Your task to perform on an android device: Show me the alarms in the clock app Image 0: 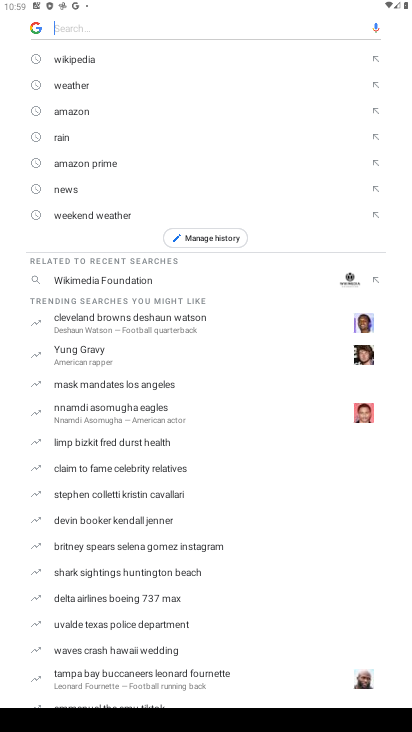
Step 0: press back button
Your task to perform on an android device: Show me the alarms in the clock app Image 1: 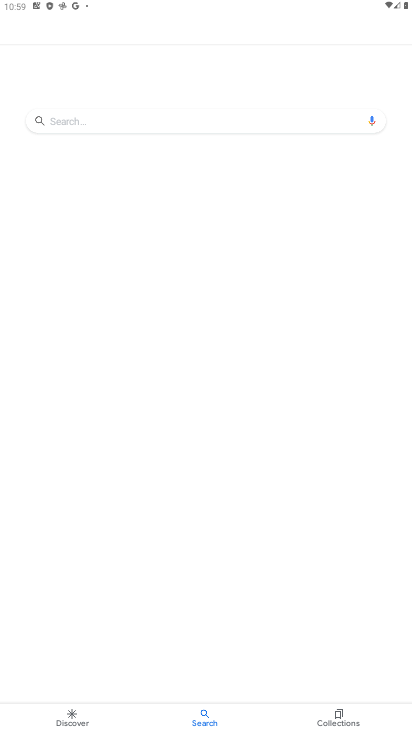
Step 1: press back button
Your task to perform on an android device: Show me the alarms in the clock app Image 2: 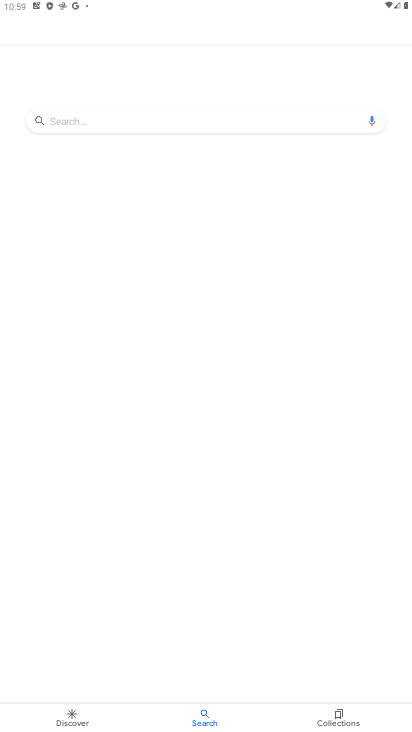
Step 2: press back button
Your task to perform on an android device: Show me the alarms in the clock app Image 3: 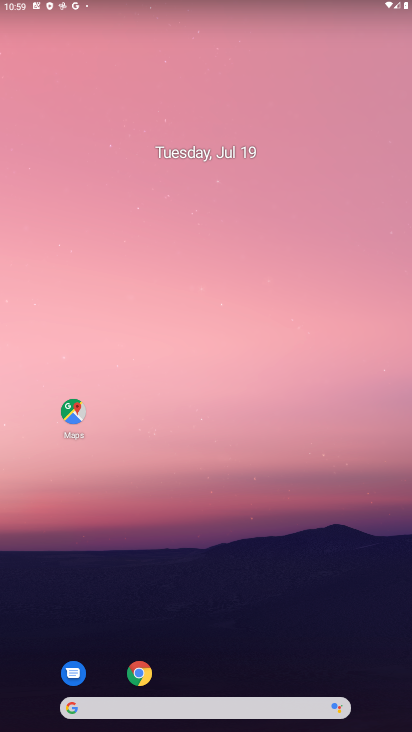
Step 3: drag from (254, 671) to (203, 101)
Your task to perform on an android device: Show me the alarms in the clock app Image 4: 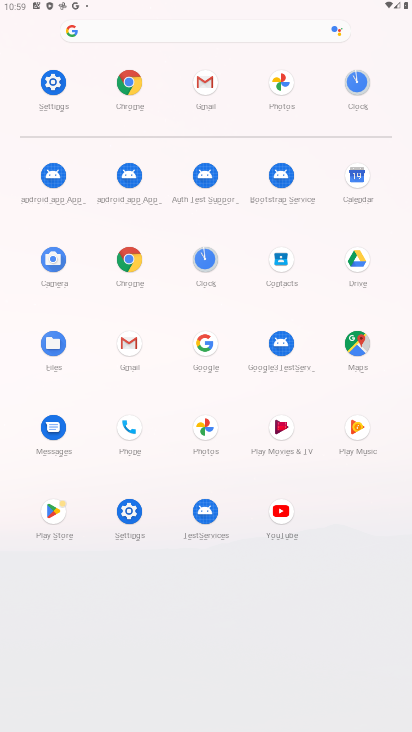
Step 4: click (221, 108)
Your task to perform on an android device: Show me the alarms in the clock app Image 5: 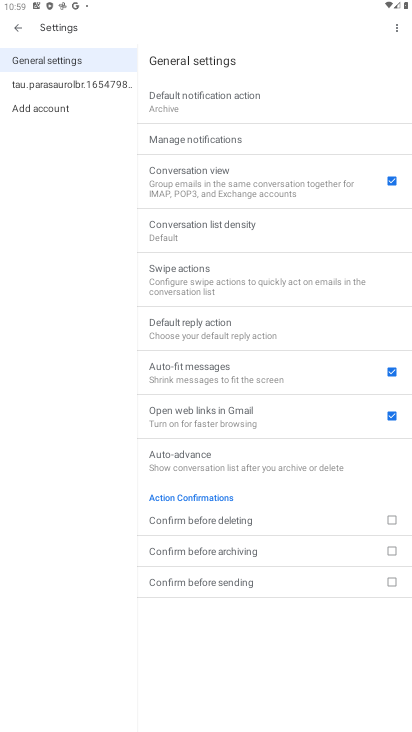
Step 5: task complete